Your task to perform on an android device: Open Android settings Image 0: 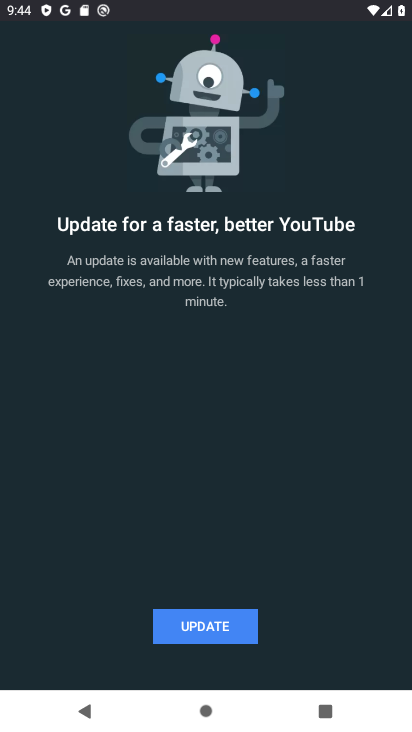
Step 0: press home button
Your task to perform on an android device: Open Android settings Image 1: 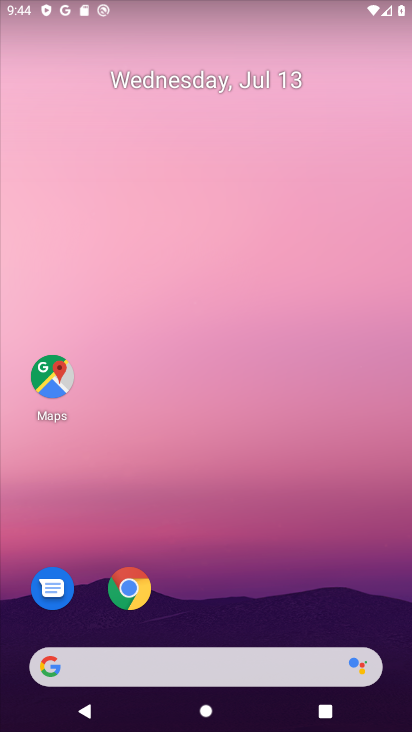
Step 1: drag from (249, 598) to (155, 147)
Your task to perform on an android device: Open Android settings Image 2: 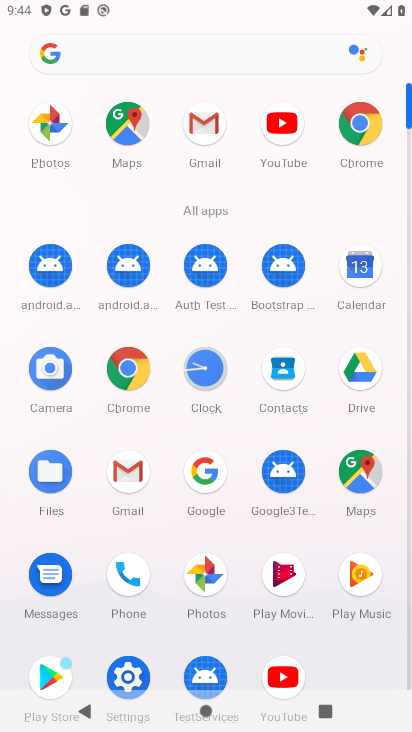
Step 2: click (124, 664)
Your task to perform on an android device: Open Android settings Image 3: 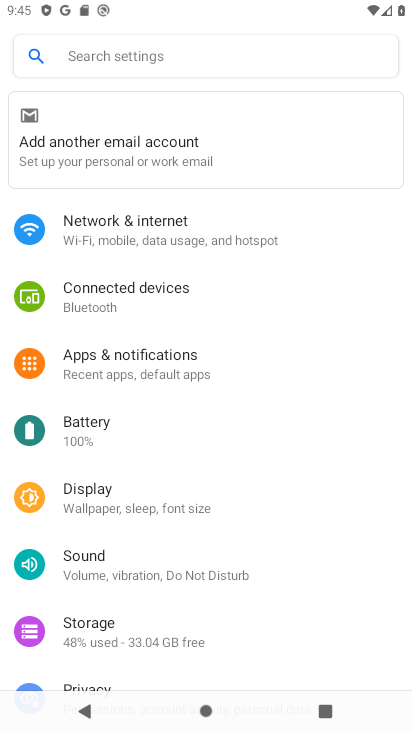
Step 3: task complete